Your task to perform on an android device: Open CNN.com Image 0: 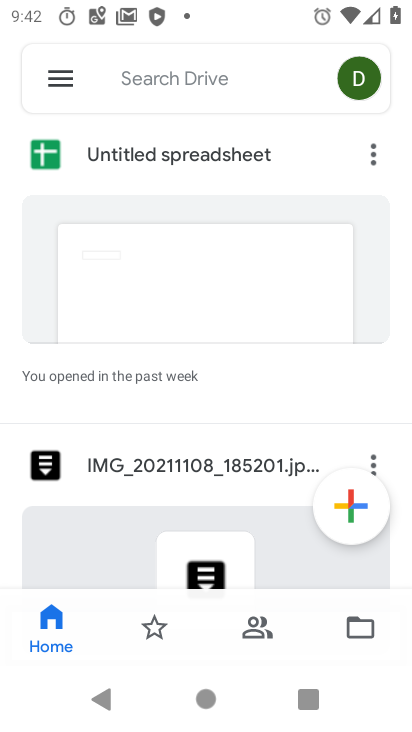
Step 0: press home button
Your task to perform on an android device: Open CNN.com Image 1: 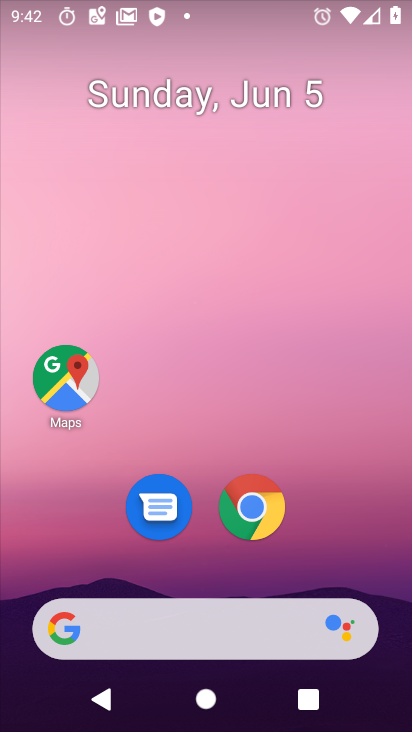
Step 1: drag from (228, 672) to (216, 82)
Your task to perform on an android device: Open CNN.com Image 2: 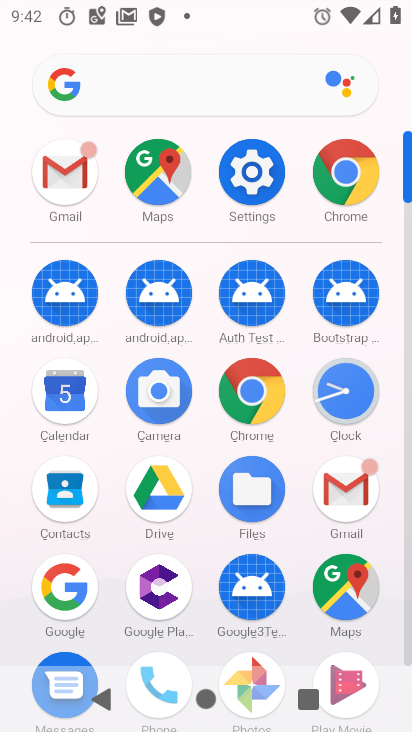
Step 2: click (366, 179)
Your task to perform on an android device: Open CNN.com Image 3: 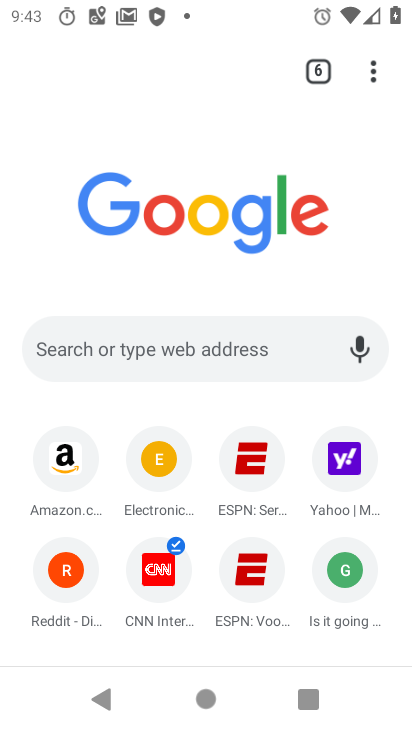
Step 3: click (174, 570)
Your task to perform on an android device: Open CNN.com Image 4: 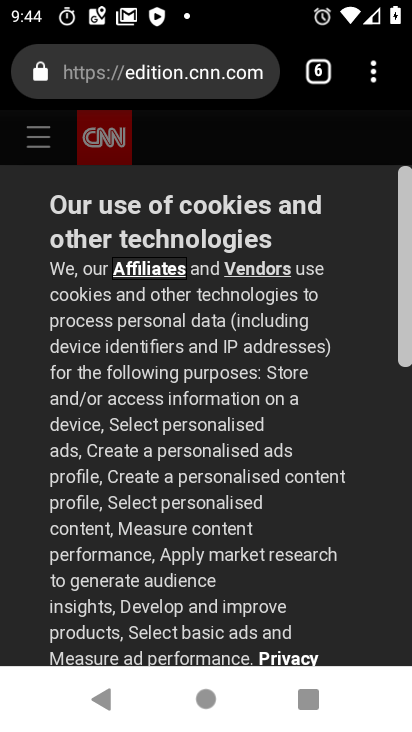
Step 4: drag from (204, 510) to (273, 93)
Your task to perform on an android device: Open CNN.com Image 5: 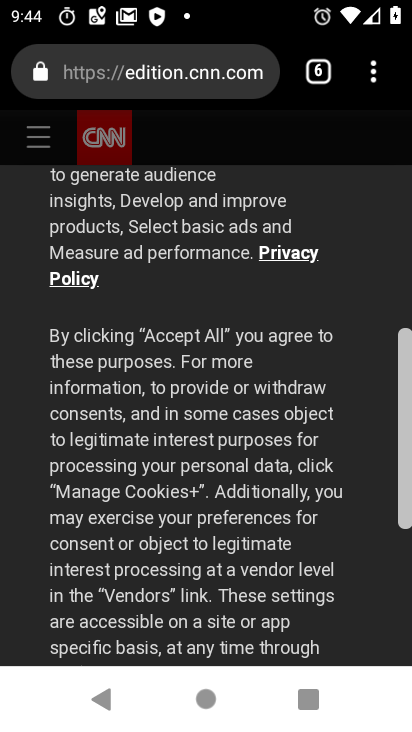
Step 5: drag from (137, 524) to (218, 231)
Your task to perform on an android device: Open CNN.com Image 6: 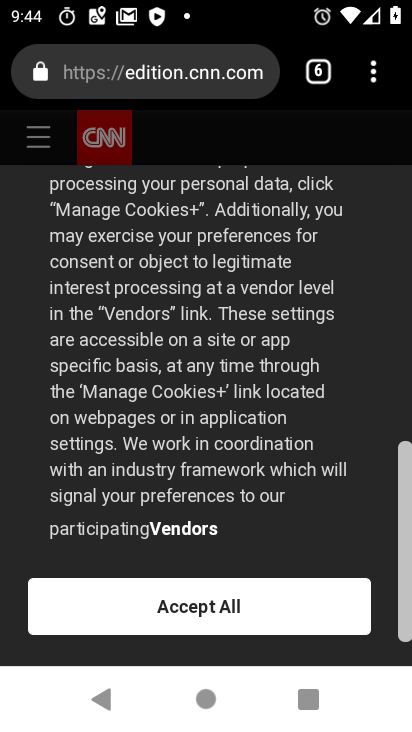
Step 6: click (203, 589)
Your task to perform on an android device: Open CNN.com Image 7: 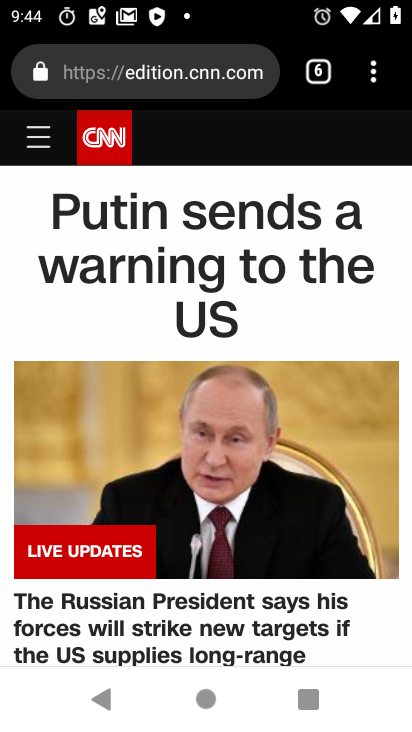
Step 7: task complete